Your task to perform on an android device: open device folders in google photos Image 0: 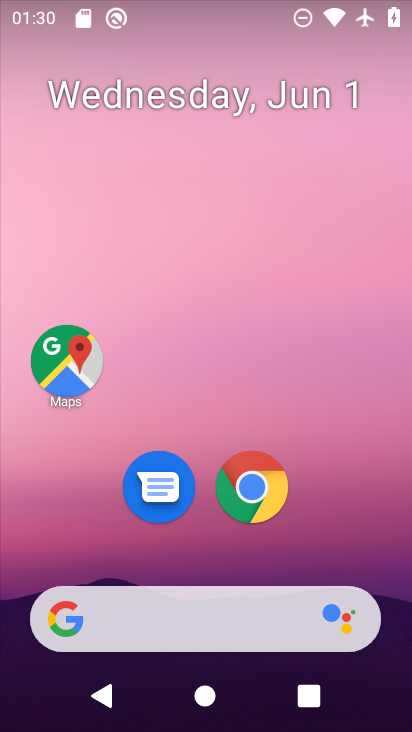
Step 0: drag from (287, 564) to (280, 207)
Your task to perform on an android device: open device folders in google photos Image 1: 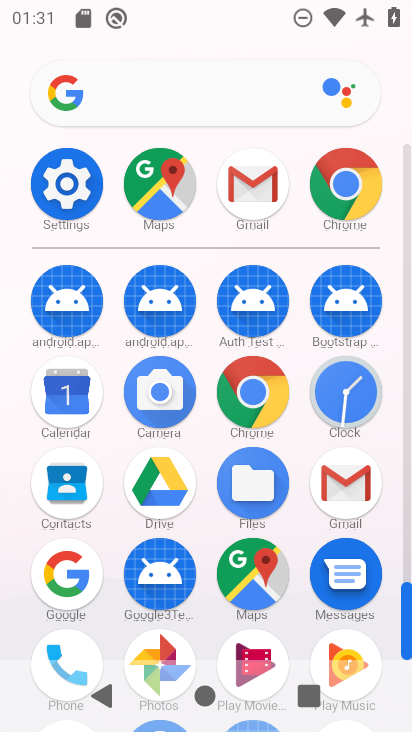
Step 1: drag from (181, 620) to (179, 505)
Your task to perform on an android device: open device folders in google photos Image 2: 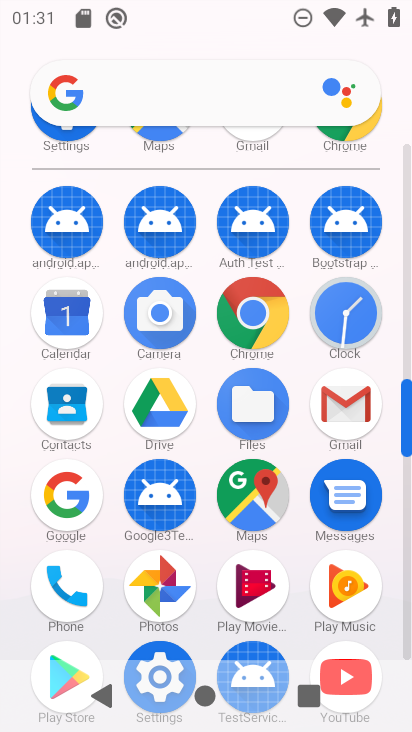
Step 2: click (159, 568)
Your task to perform on an android device: open device folders in google photos Image 3: 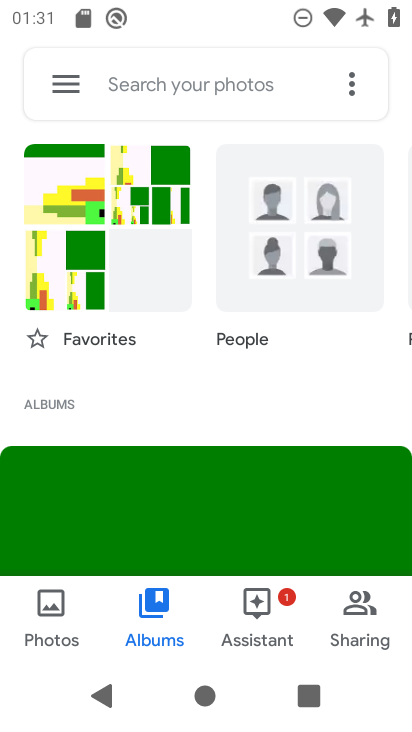
Step 3: task complete